Your task to perform on an android device: turn off location Image 0: 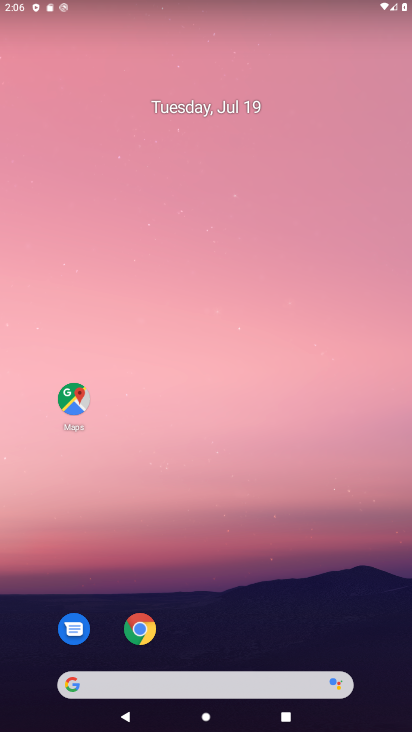
Step 0: drag from (227, 649) to (265, 234)
Your task to perform on an android device: turn off location Image 1: 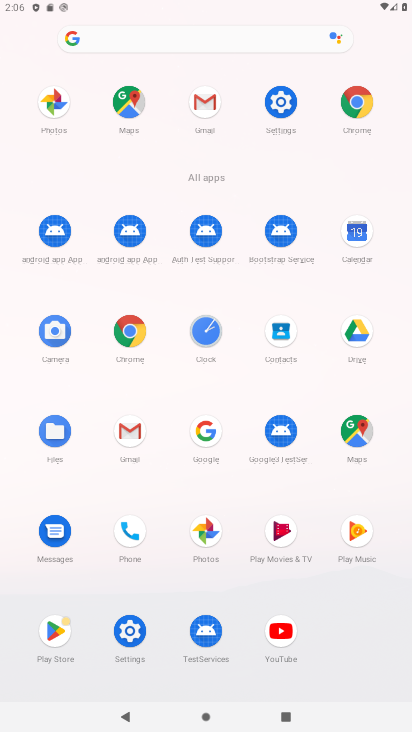
Step 1: click (150, 654)
Your task to perform on an android device: turn off location Image 2: 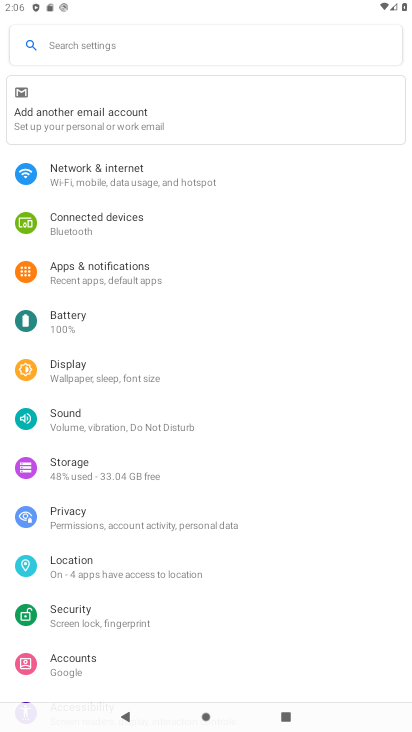
Step 2: click (120, 576)
Your task to perform on an android device: turn off location Image 3: 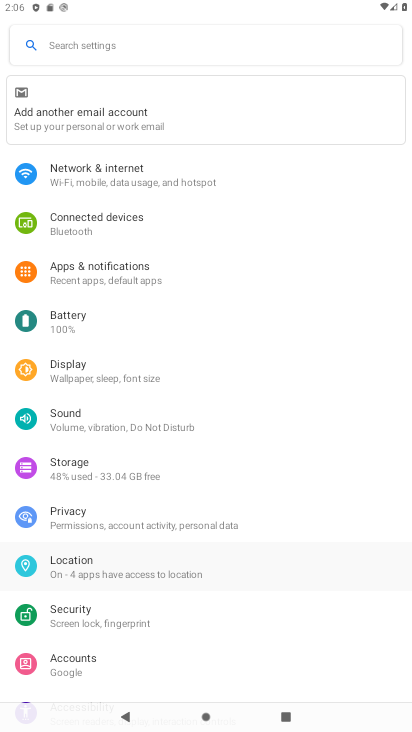
Step 3: click (120, 576)
Your task to perform on an android device: turn off location Image 4: 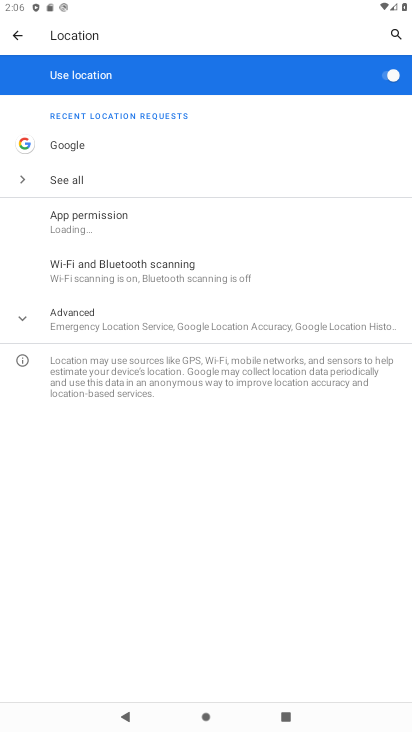
Step 4: click (383, 70)
Your task to perform on an android device: turn off location Image 5: 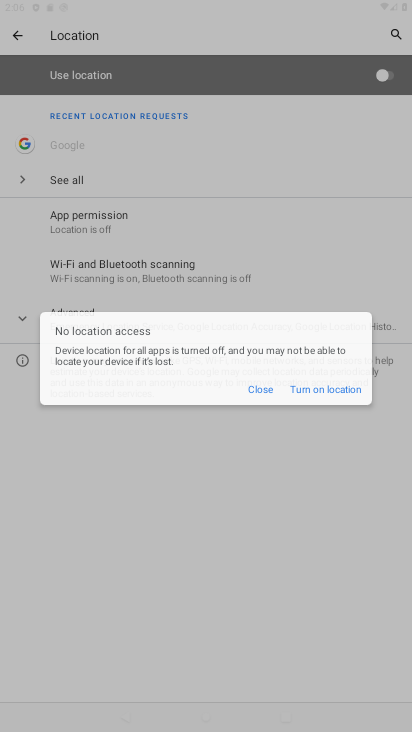
Step 5: task complete